Your task to perform on an android device: Go to eBay Image 0: 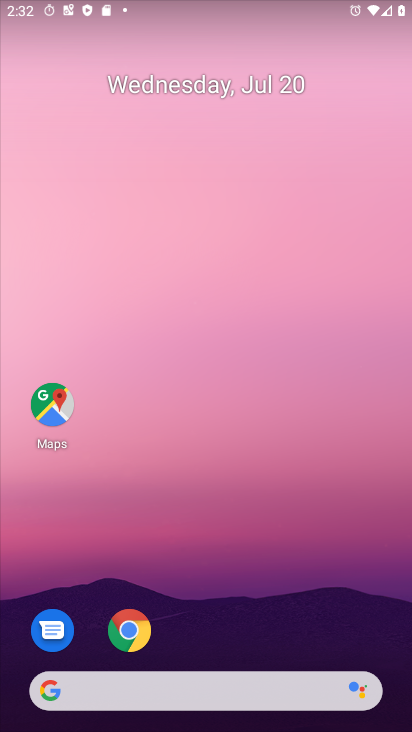
Step 0: press home button
Your task to perform on an android device: Go to eBay Image 1: 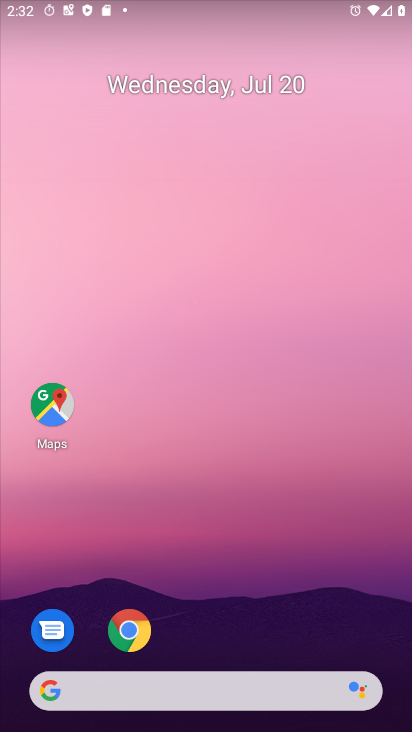
Step 1: click (130, 633)
Your task to perform on an android device: Go to eBay Image 2: 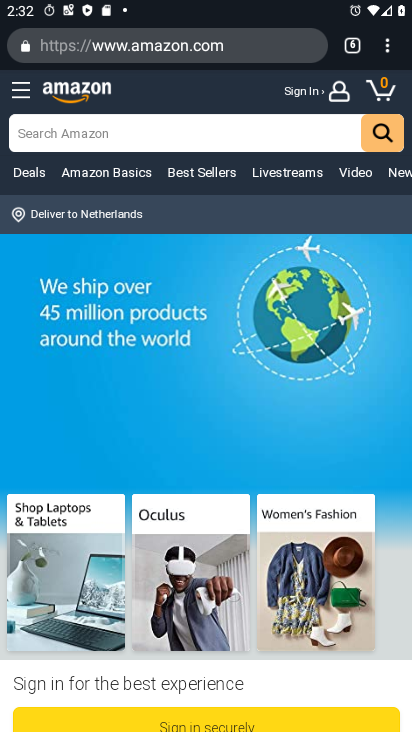
Step 2: drag from (392, 45) to (309, 93)
Your task to perform on an android device: Go to eBay Image 3: 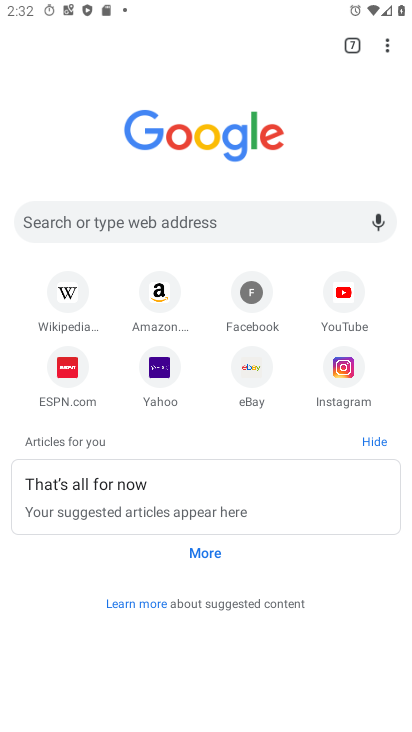
Step 3: click (252, 370)
Your task to perform on an android device: Go to eBay Image 4: 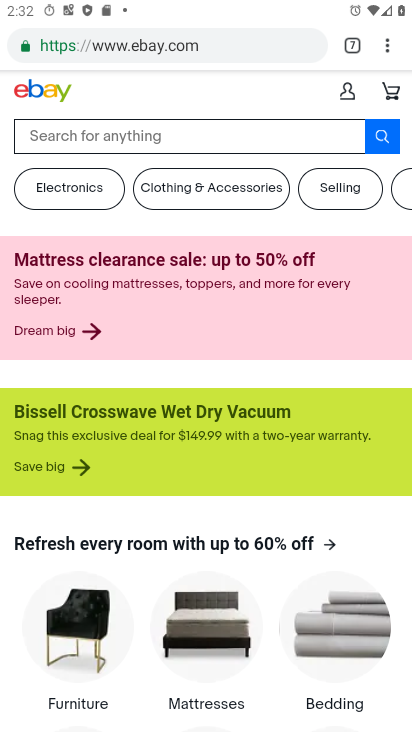
Step 4: task complete